Your task to perform on an android device: change your default location settings in chrome Image 0: 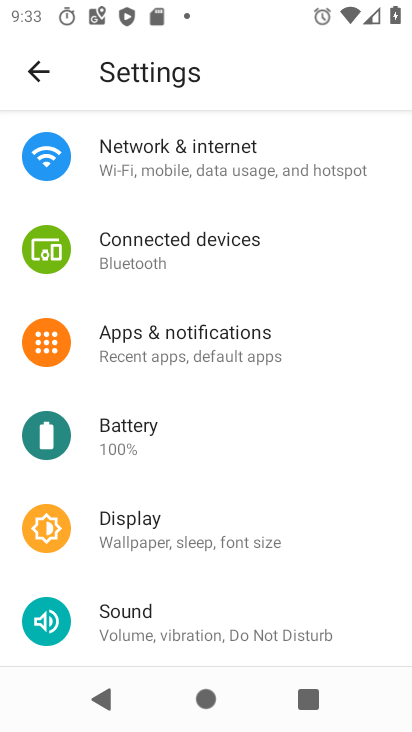
Step 0: press home button
Your task to perform on an android device: change your default location settings in chrome Image 1: 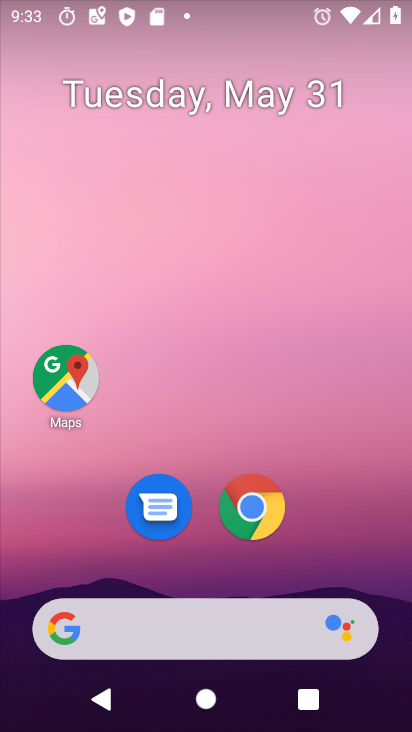
Step 1: click (257, 529)
Your task to perform on an android device: change your default location settings in chrome Image 2: 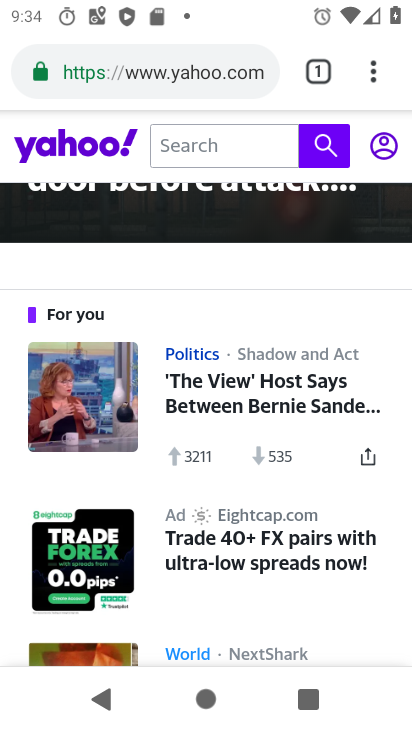
Step 2: click (370, 71)
Your task to perform on an android device: change your default location settings in chrome Image 3: 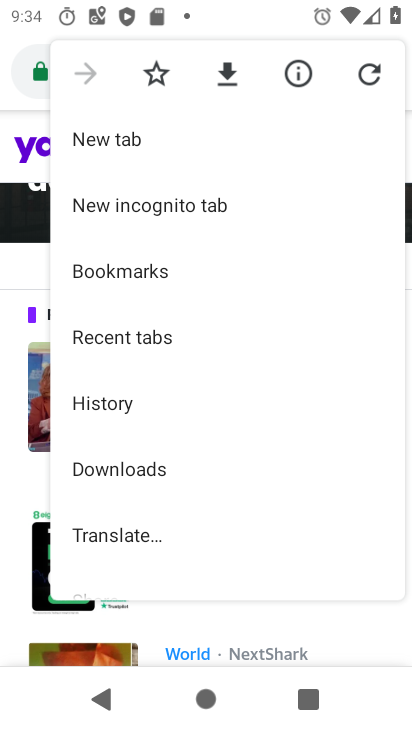
Step 3: drag from (214, 489) to (239, 160)
Your task to perform on an android device: change your default location settings in chrome Image 4: 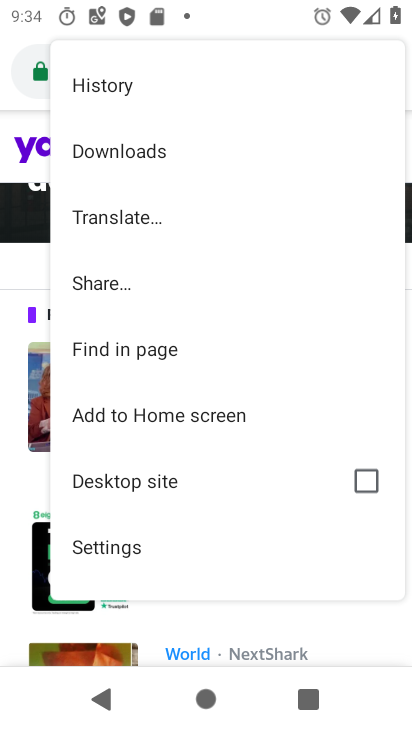
Step 4: drag from (225, 483) to (217, 195)
Your task to perform on an android device: change your default location settings in chrome Image 5: 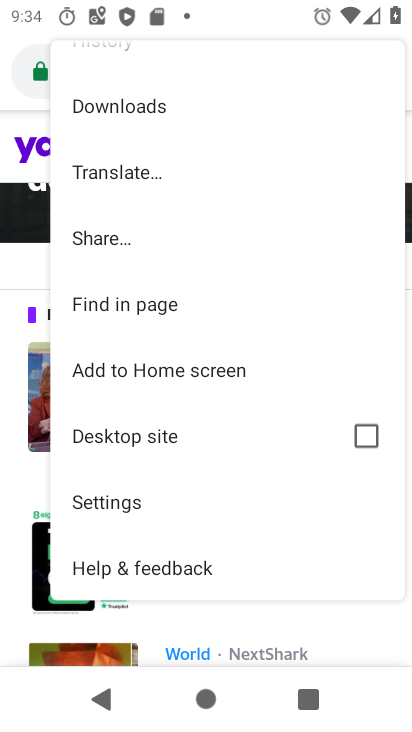
Step 5: click (121, 507)
Your task to perform on an android device: change your default location settings in chrome Image 6: 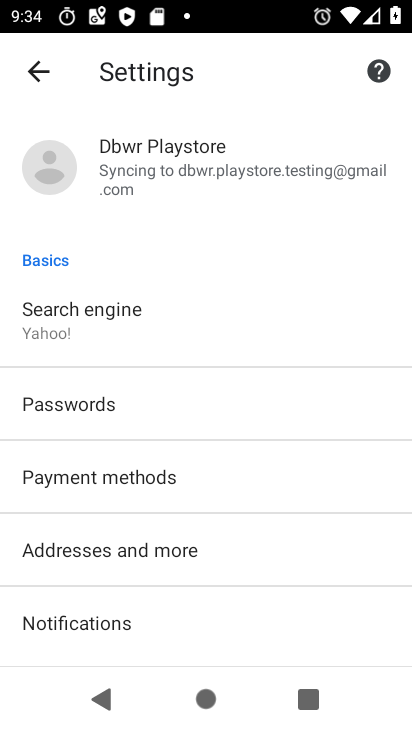
Step 6: drag from (254, 545) to (224, 258)
Your task to perform on an android device: change your default location settings in chrome Image 7: 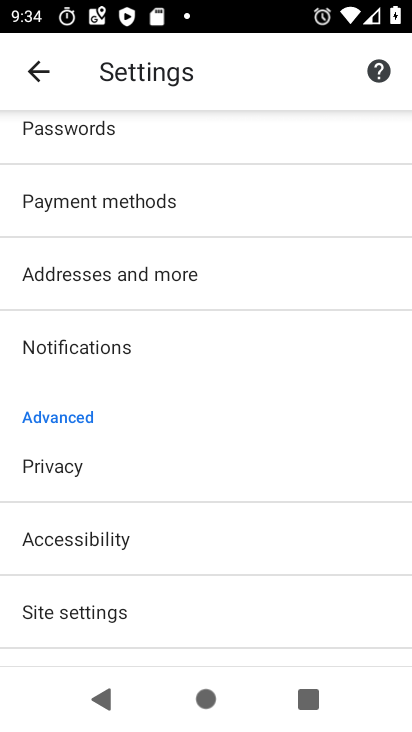
Step 7: drag from (215, 556) to (212, 333)
Your task to perform on an android device: change your default location settings in chrome Image 8: 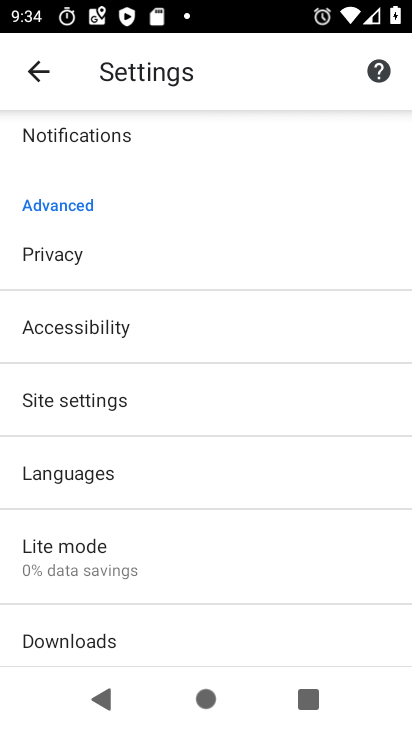
Step 8: click (106, 409)
Your task to perform on an android device: change your default location settings in chrome Image 9: 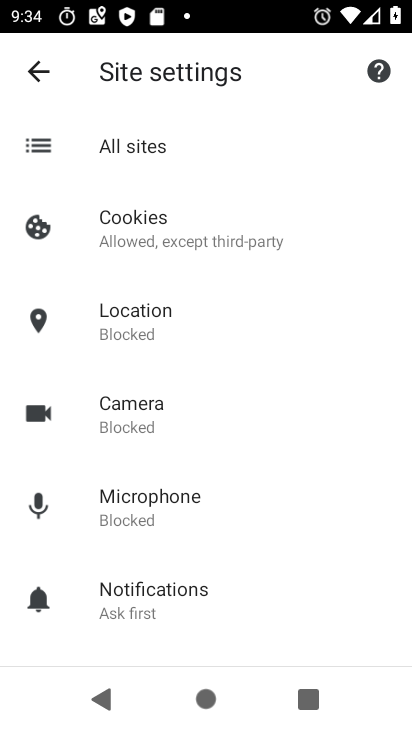
Step 9: click (112, 313)
Your task to perform on an android device: change your default location settings in chrome Image 10: 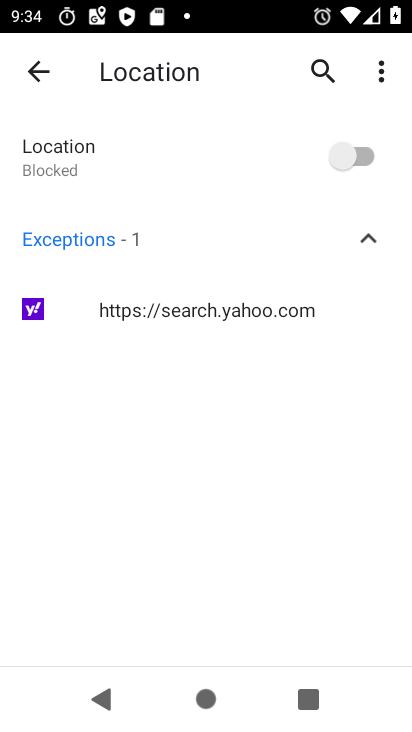
Step 10: click (337, 162)
Your task to perform on an android device: change your default location settings in chrome Image 11: 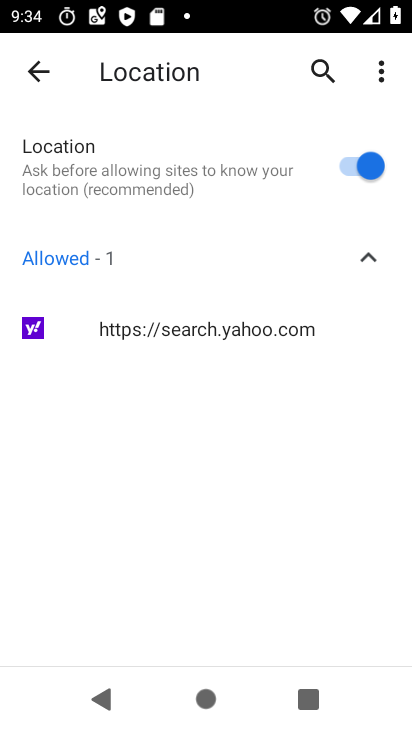
Step 11: task complete